Your task to perform on an android device: turn on location history Image 0: 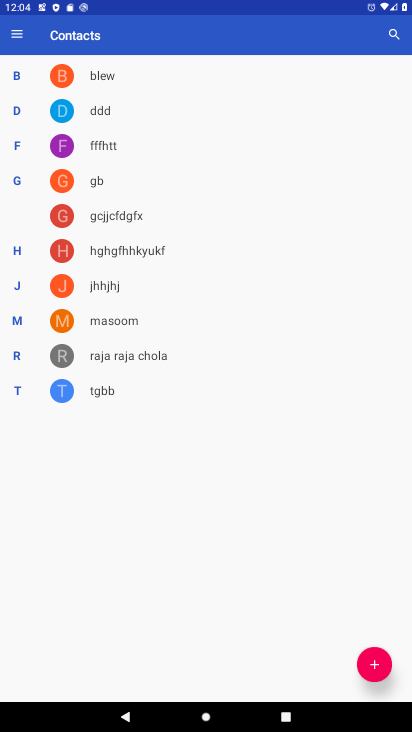
Step 0: press home button
Your task to perform on an android device: turn on location history Image 1: 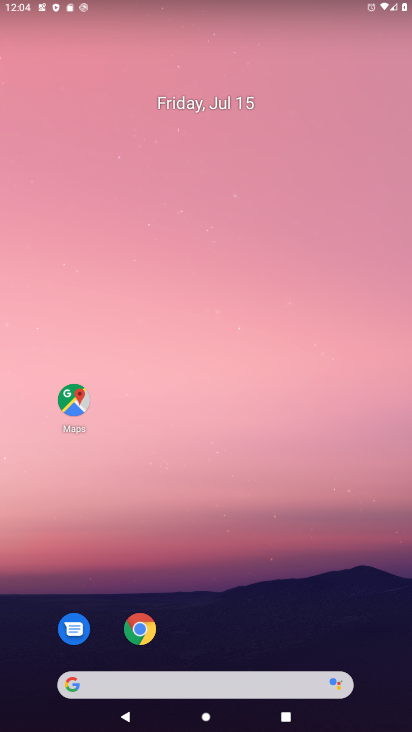
Step 1: drag from (242, 638) to (258, 150)
Your task to perform on an android device: turn on location history Image 2: 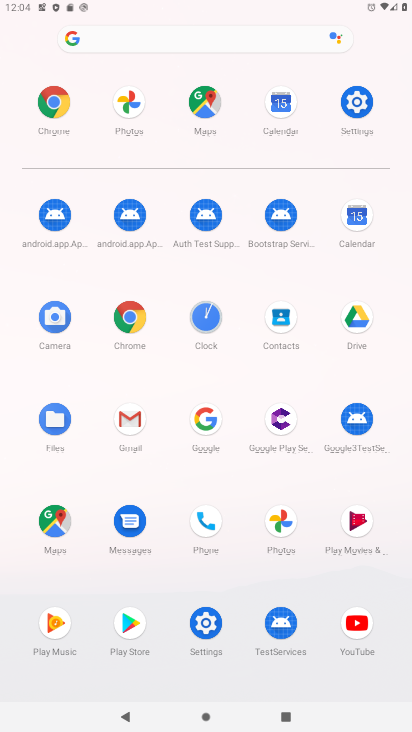
Step 2: click (359, 102)
Your task to perform on an android device: turn on location history Image 3: 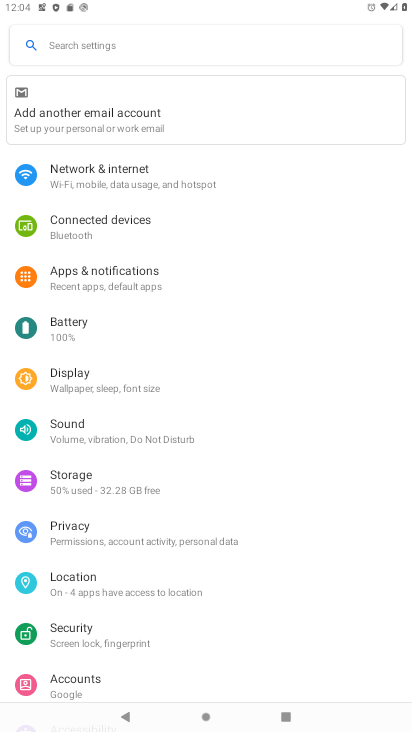
Step 3: click (70, 579)
Your task to perform on an android device: turn on location history Image 4: 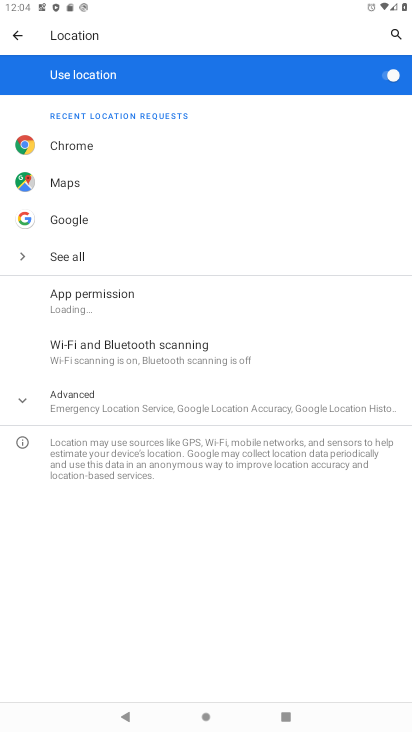
Step 4: click (92, 406)
Your task to perform on an android device: turn on location history Image 5: 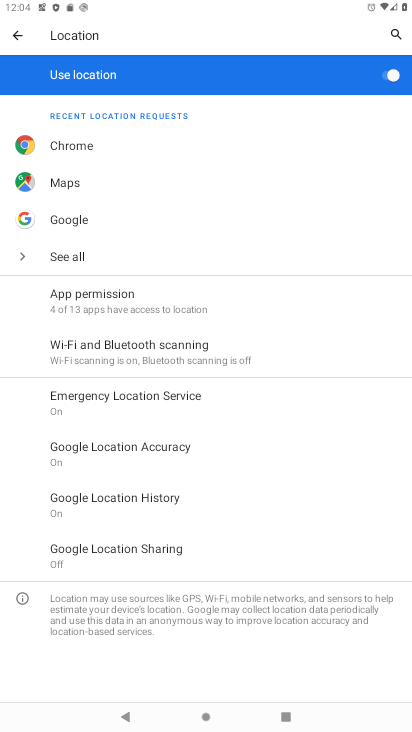
Step 5: click (144, 501)
Your task to perform on an android device: turn on location history Image 6: 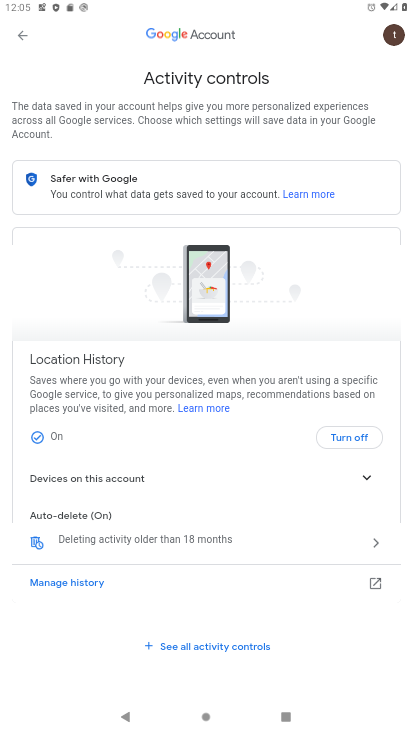
Step 6: task complete